Your task to perform on an android device: Go to display settings Image 0: 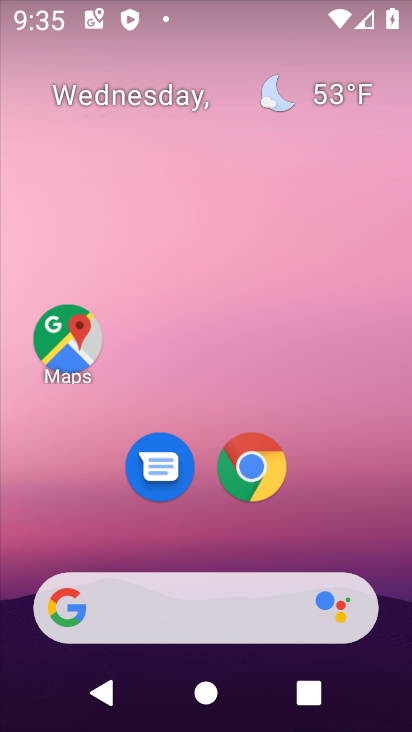
Step 0: press home button
Your task to perform on an android device: Go to display settings Image 1: 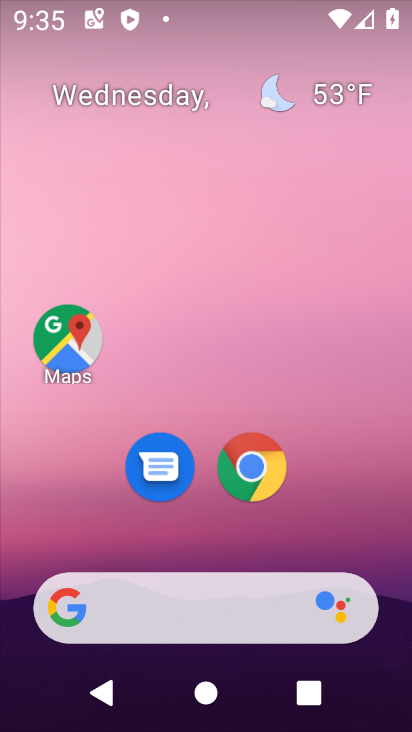
Step 1: drag from (372, 523) to (391, 71)
Your task to perform on an android device: Go to display settings Image 2: 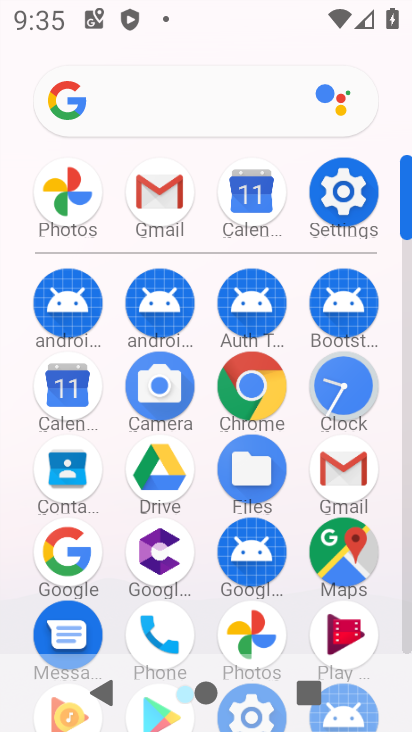
Step 2: click (363, 208)
Your task to perform on an android device: Go to display settings Image 3: 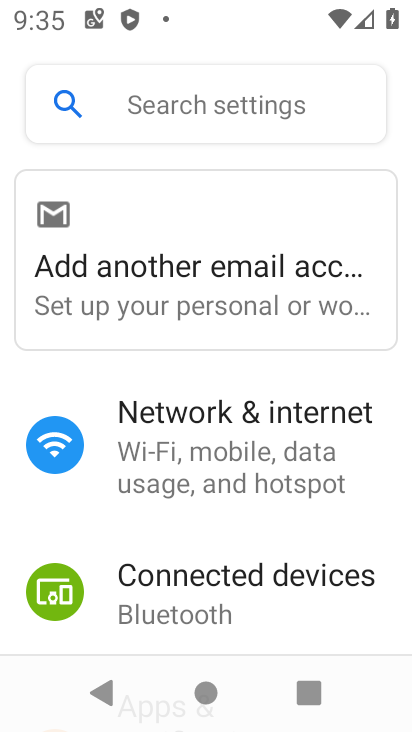
Step 3: drag from (227, 487) to (220, 55)
Your task to perform on an android device: Go to display settings Image 4: 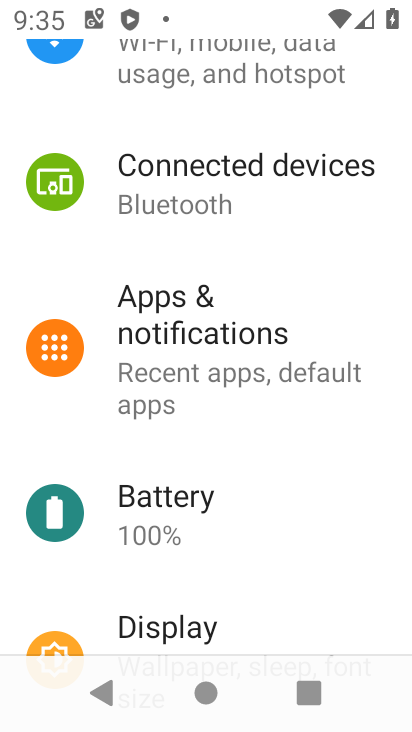
Step 4: click (240, 601)
Your task to perform on an android device: Go to display settings Image 5: 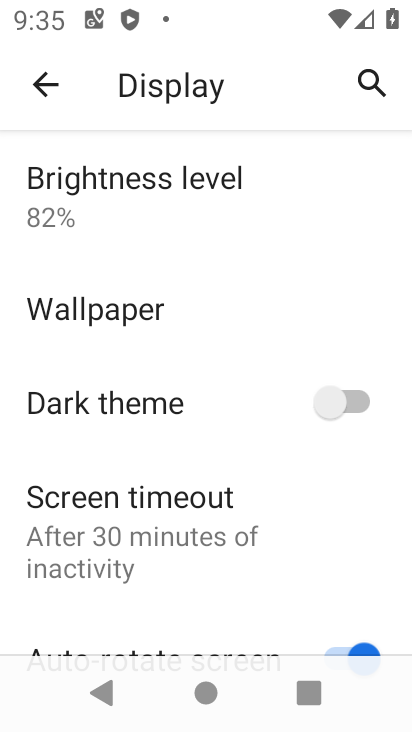
Step 5: task complete